Your task to perform on an android device: change alarm snooze length Image 0: 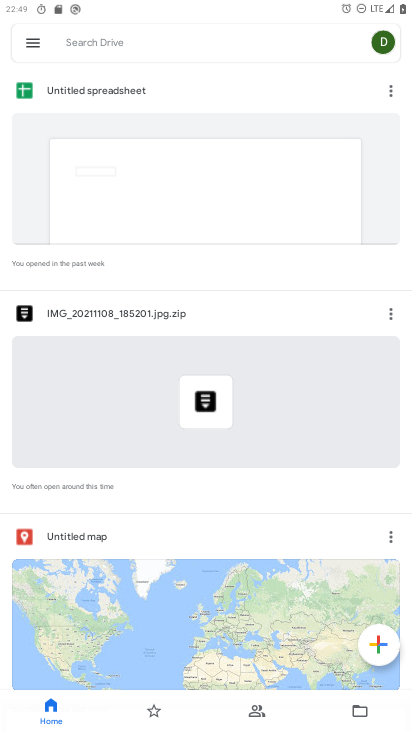
Step 0: press home button
Your task to perform on an android device: change alarm snooze length Image 1: 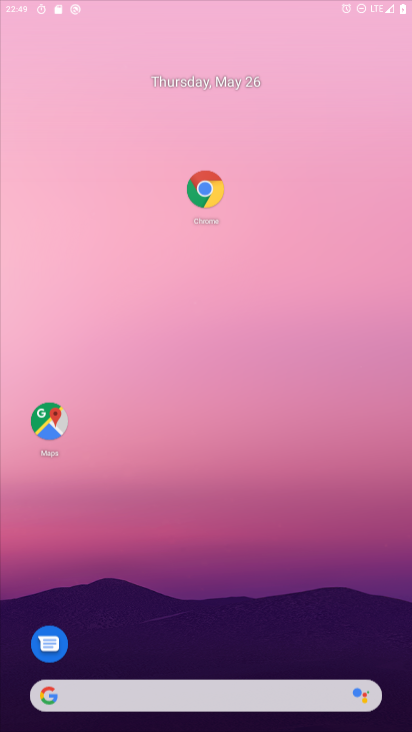
Step 1: drag from (151, 639) to (239, 93)
Your task to perform on an android device: change alarm snooze length Image 2: 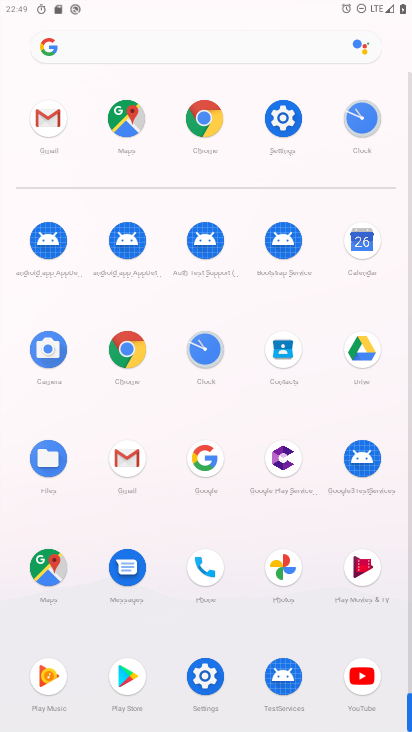
Step 2: click (198, 355)
Your task to perform on an android device: change alarm snooze length Image 3: 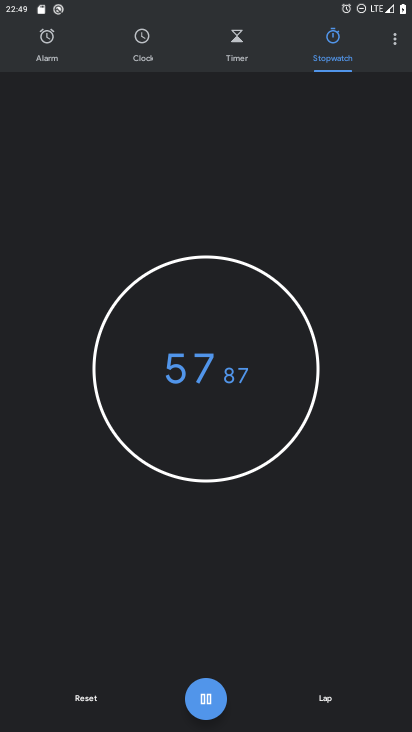
Step 3: click (396, 47)
Your task to perform on an android device: change alarm snooze length Image 4: 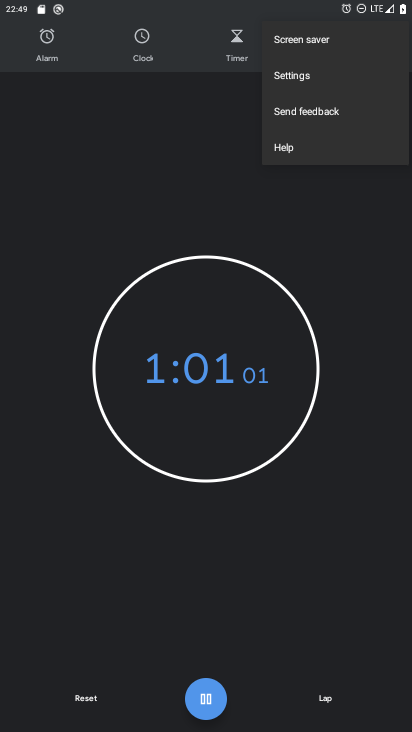
Step 4: click (287, 87)
Your task to perform on an android device: change alarm snooze length Image 5: 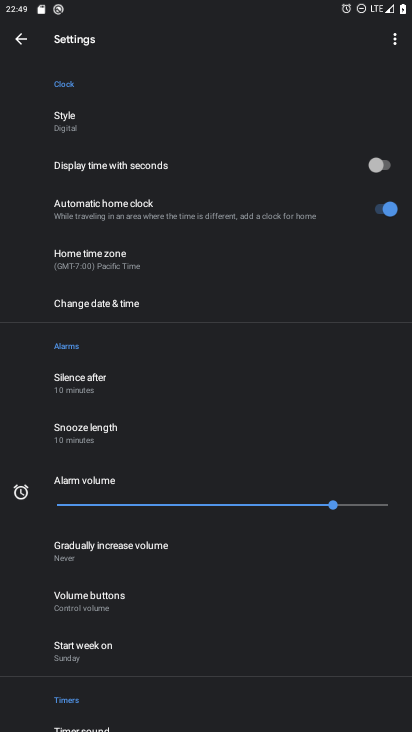
Step 5: click (75, 452)
Your task to perform on an android device: change alarm snooze length Image 6: 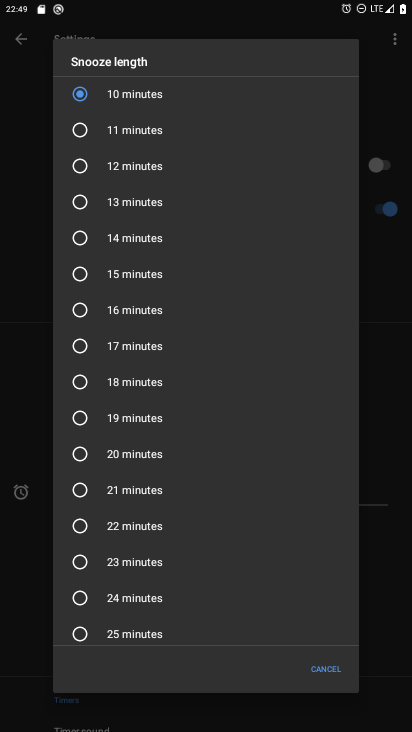
Step 6: click (107, 159)
Your task to perform on an android device: change alarm snooze length Image 7: 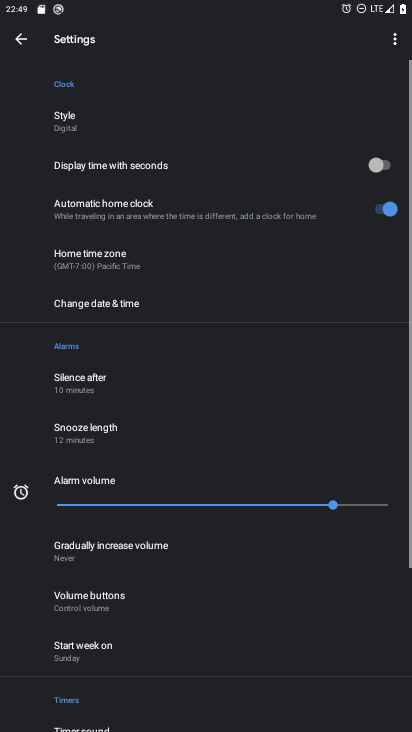
Step 7: task complete